Your task to perform on an android device: Set the phone to "Do not disturb". Image 0: 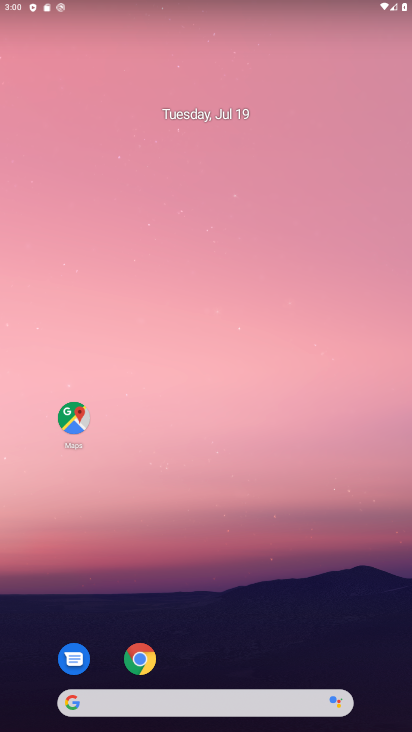
Step 0: drag from (327, 623) to (232, 65)
Your task to perform on an android device: Set the phone to "Do not disturb". Image 1: 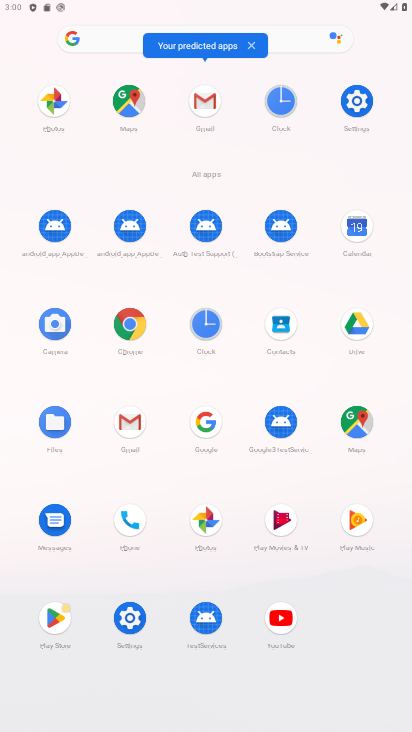
Step 1: click (359, 100)
Your task to perform on an android device: Set the phone to "Do not disturb". Image 2: 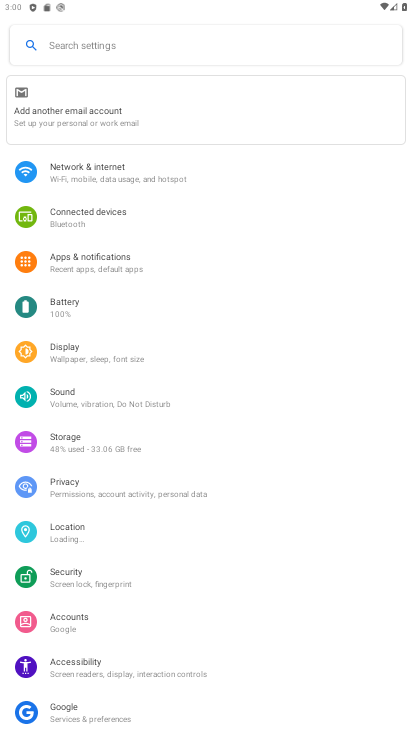
Step 2: click (95, 391)
Your task to perform on an android device: Set the phone to "Do not disturb". Image 3: 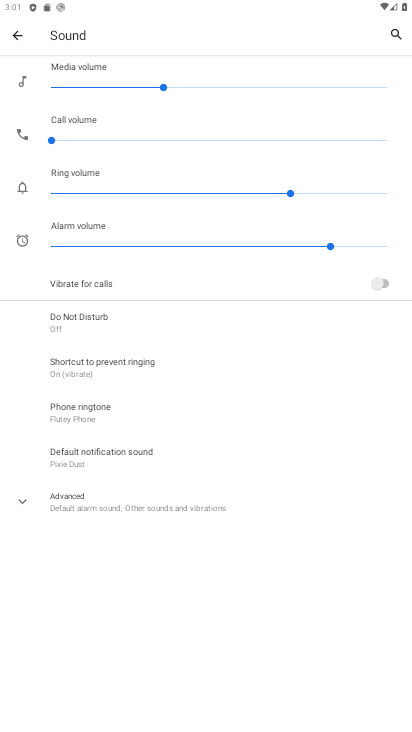
Step 3: click (99, 331)
Your task to perform on an android device: Set the phone to "Do not disturb". Image 4: 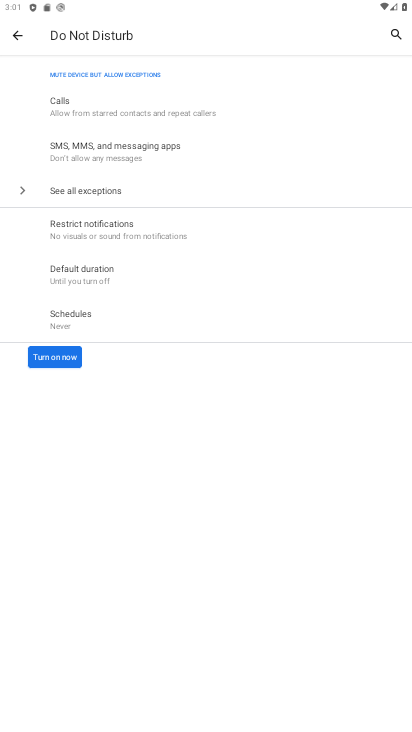
Step 4: click (35, 353)
Your task to perform on an android device: Set the phone to "Do not disturb". Image 5: 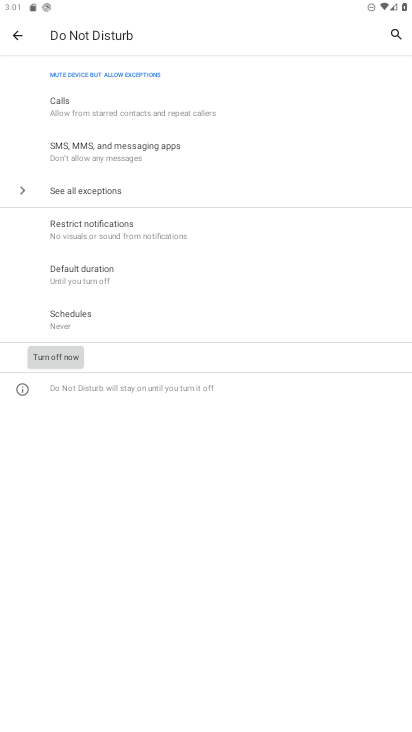
Step 5: task complete